Your task to perform on an android device: choose inbox layout in the gmail app Image 0: 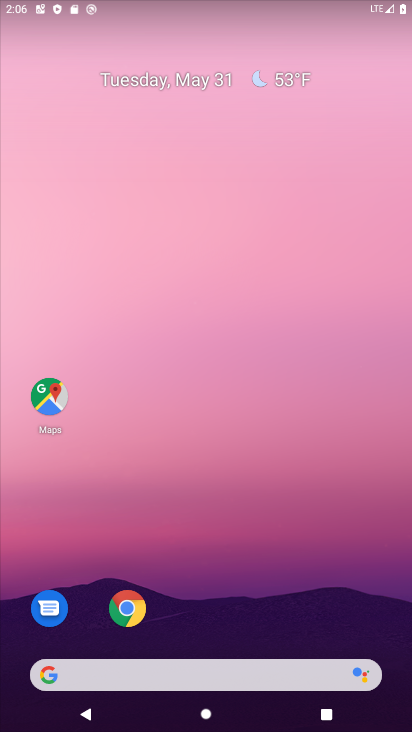
Step 0: drag from (318, 610) to (284, 158)
Your task to perform on an android device: choose inbox layout in the gmail app Image 1: 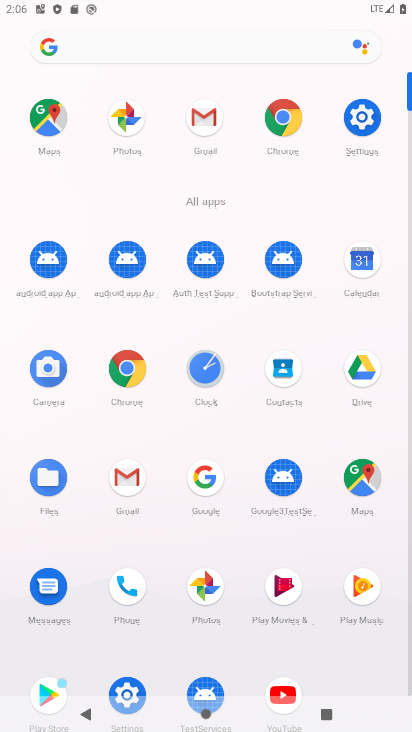
Step 1: click (199, 112)
Your task to perform on an android device: choose inbox layout in the gmail app Image 2: 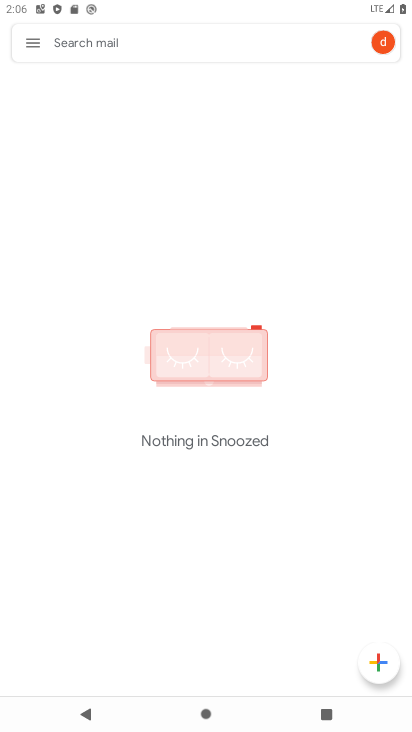
Step 2: click (25, 40)
Your task to perform on an android device: choose inbox layout in the gmail app Image 3: 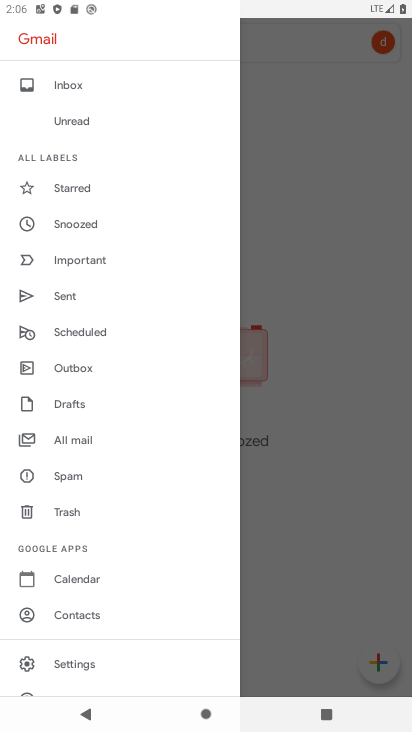
Step 3: click (87, 662)
Your task to perform on an android device: choose inbox layout in the gmail app Image 4: 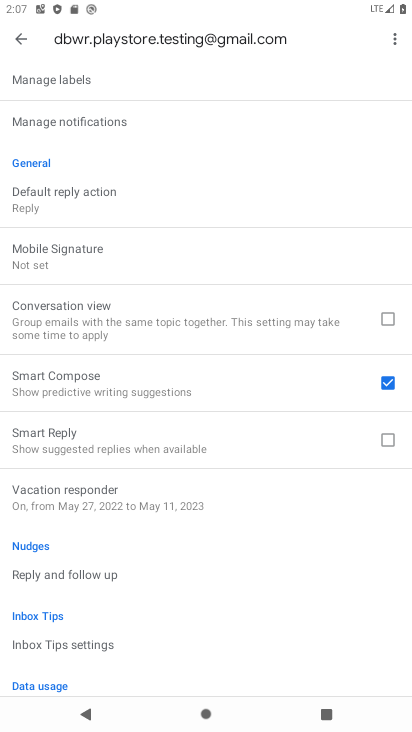
Step 4: drag from (261, 624) to (218, 654)
Your task to perform on an android device: choose inbox layout in the gmail app Image 5: 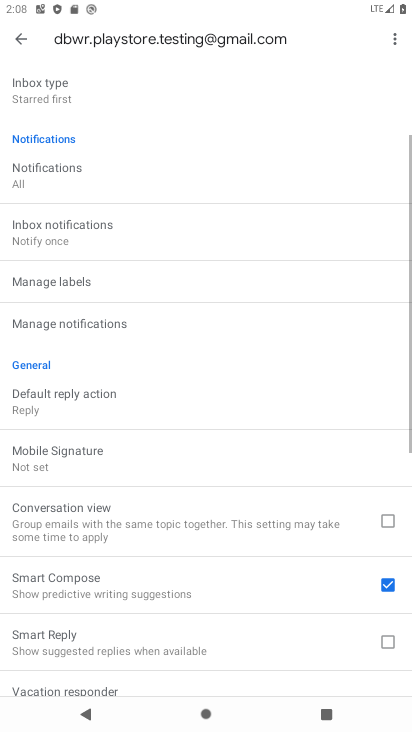
Step 5: click (44, 104)
Your task to perform on an android device: choose inbox layout in the gmail app Image 6: 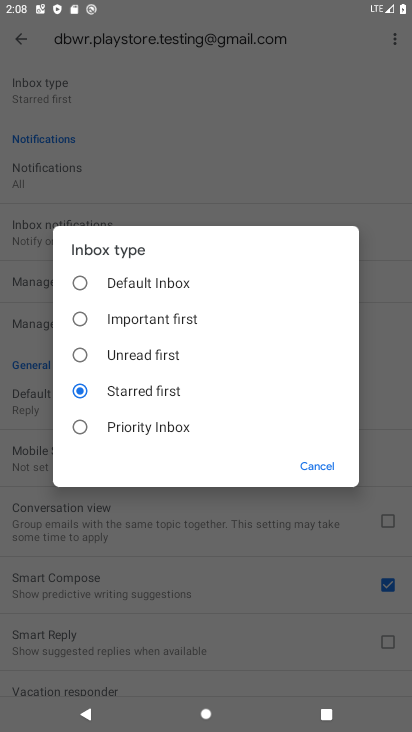
Step 6: click (84, 286)
Your task to perform on an android device: choose inbox layout in the gmail app Image 7: 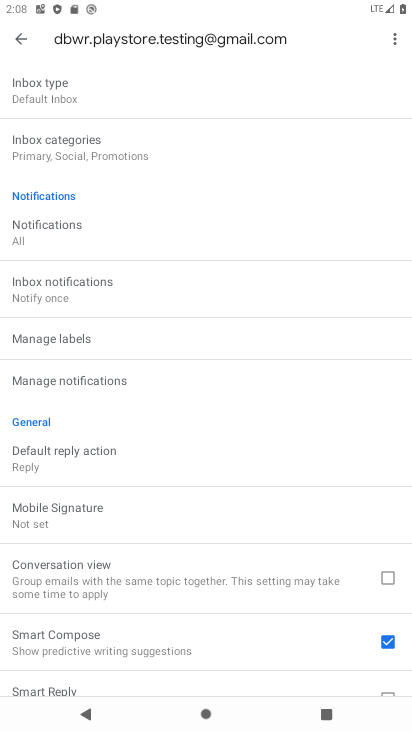
Step 7: task complete